Your task to perform on an android device: Open Android settings Image 0: 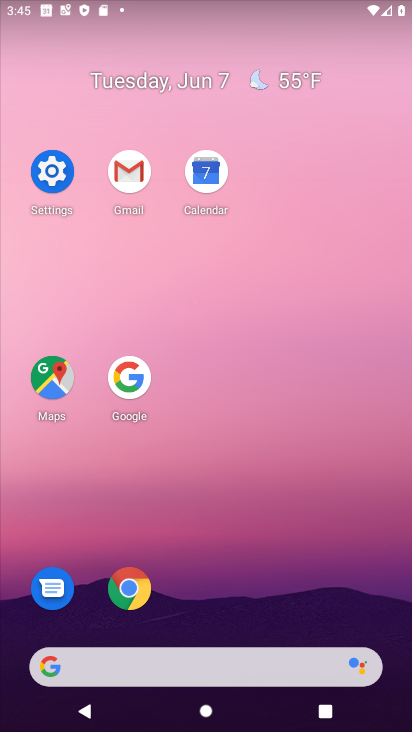
Step 0: click (56, 175)
Your task to perform on an android device: Open Android settings Image 1: 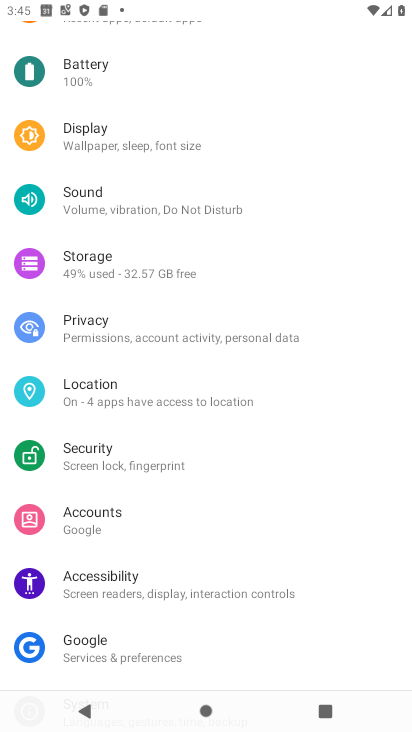
Step 1: task complete